Your task to perform on an android device: Go to network settings Image 0: 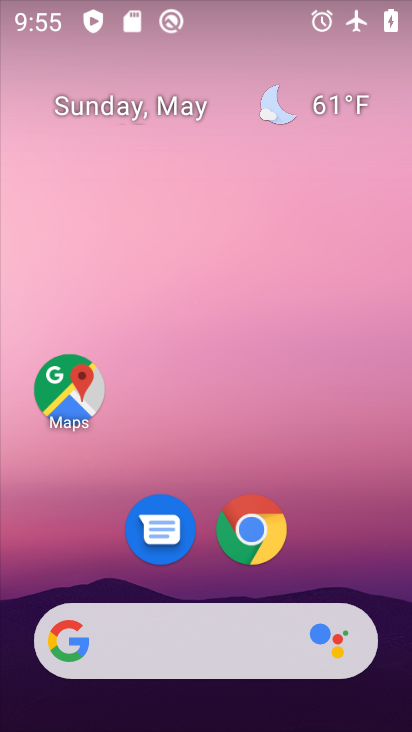
Step 0: drag from (238, 671) to (240, 168)
Your task to perform on an android device: Go to network settings Image 1: 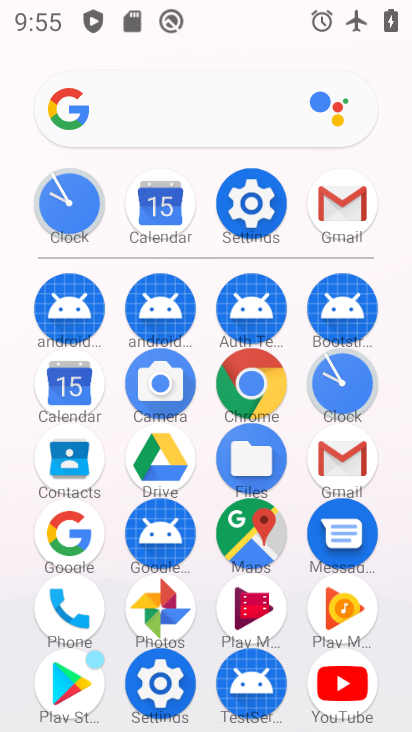
Step 1: click (254, 205)
Your task to perform on an android device: Go to network settings Image 2: 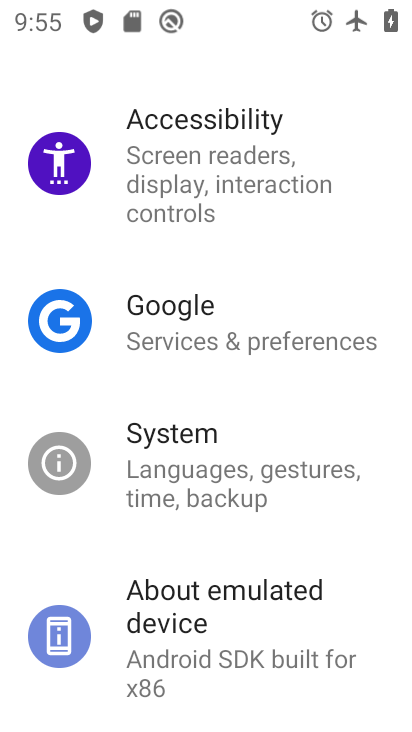
Step 2: drag from (242, 126) to (238, 492)
Your task to perform on an android device: Go to network settings Image 3: 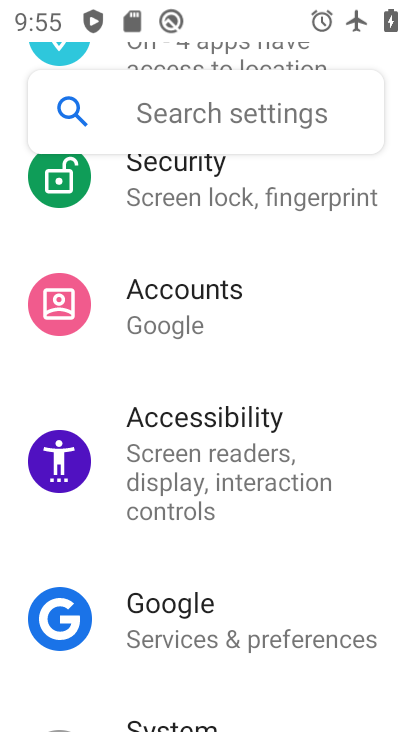
Step 3: drag from (288, 193) to (277, 640)
Your task to perform on an android device: Go to network settings Image 4: 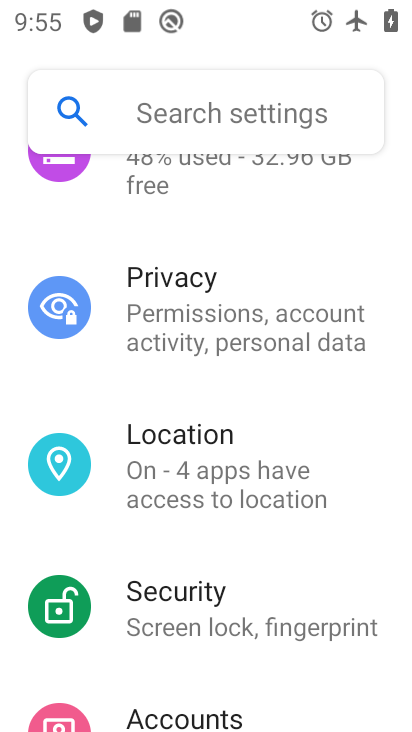
Step 4: drag from (284, 178) to (280, 594)
Your task to perform on an android device: Go to network settings Image 5: 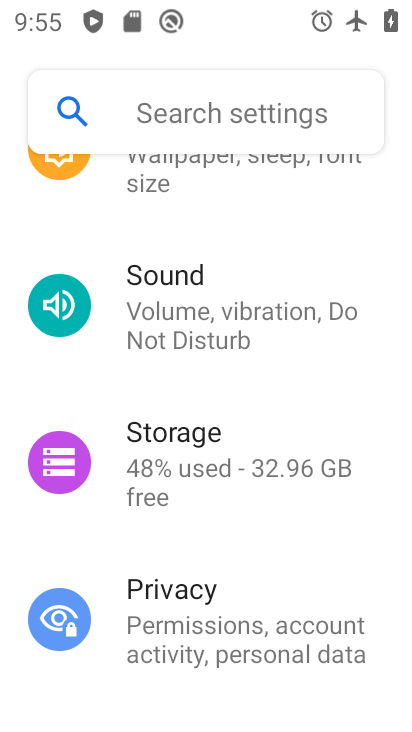
Step 5: drag from (183, 203) to (182, 603)
Your task to perform on an android device: Go to network settings Image 6: 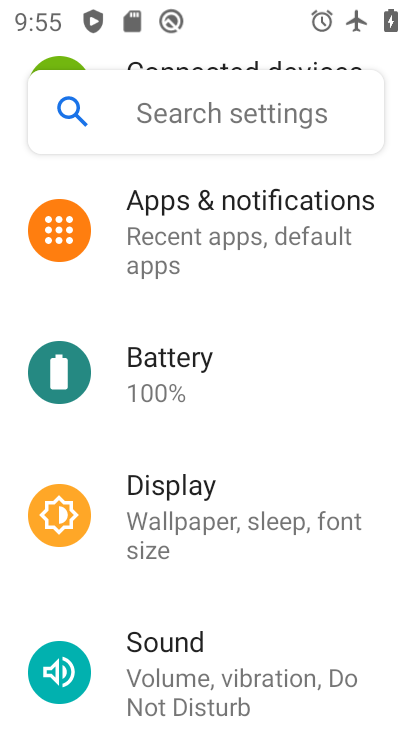
Step 6: drag from (209, 176) to (204, 503)
Your task to perform on an android device: Go to network settings Image 7: 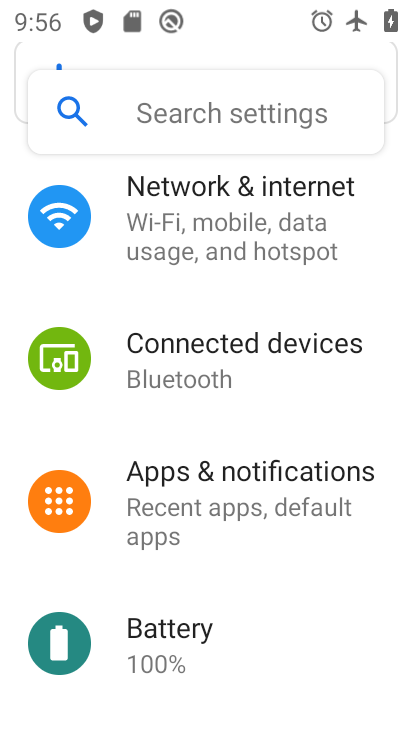
Step 7: click (199, 198)
Your task to perform on an android device: Go to network settings Image 8: 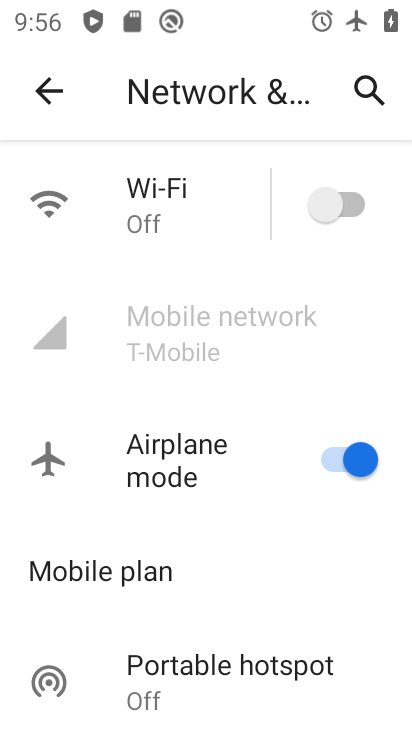
Step 8: task complete